Your task to perform on an android device: change text size in settings app Image 0: 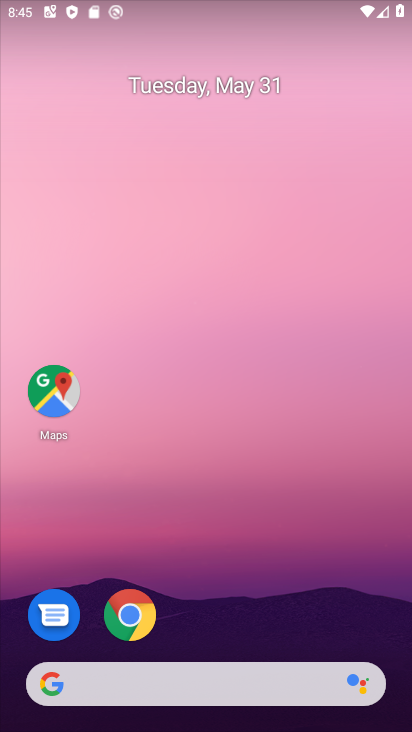
Step 0: drag from (390, 626) to (276, 72)
Your task to perform on an android device: change text size in settings app Image 1: 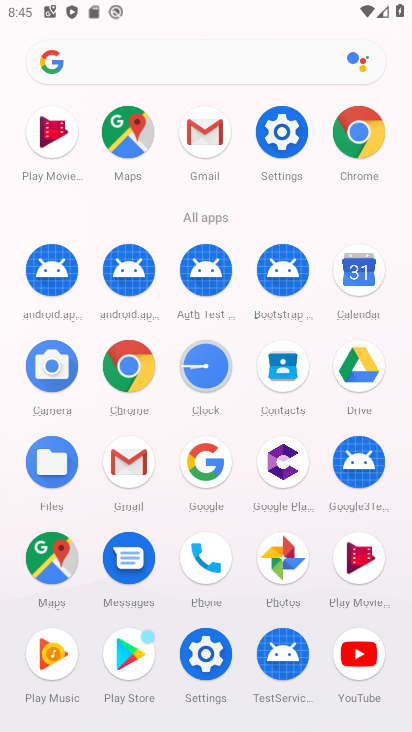
Step 1: click (203, 654)
Your task to perform on an android device: change text size in settings app Image 2: 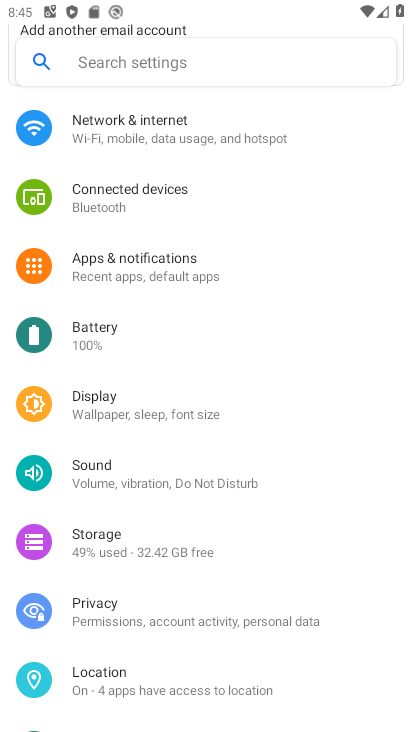
Step 2: click (113, 400)
Your task to perform on an android device: change text size in settings app Image 3: 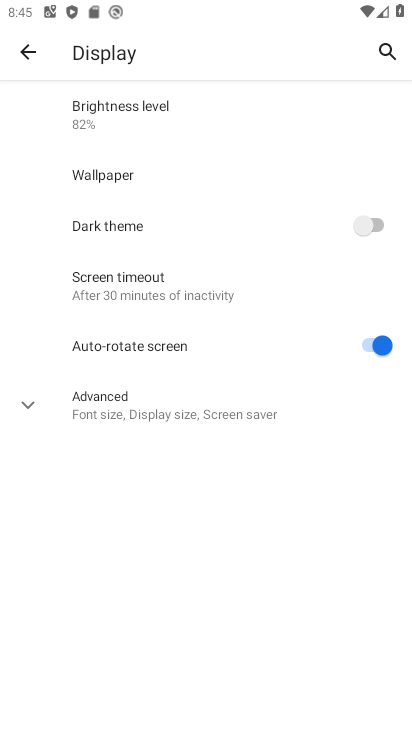
Step 3: click (30, 408)
Your task to perform on an android device: change text size in settings app Image 4: 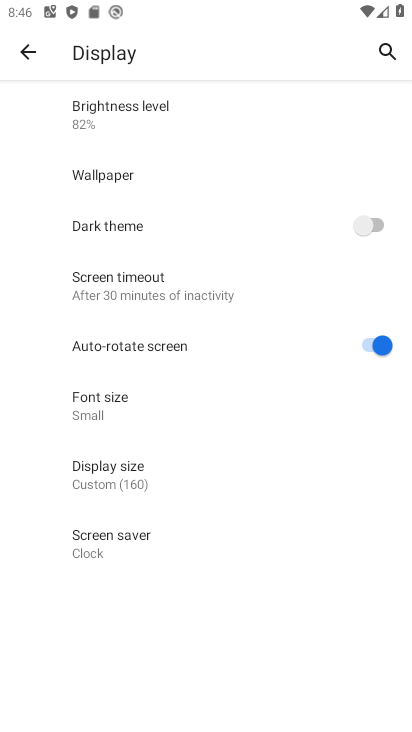
Step 4: click (92, 390)
Your task to perform on an android device: change text size in settings app Image 5: 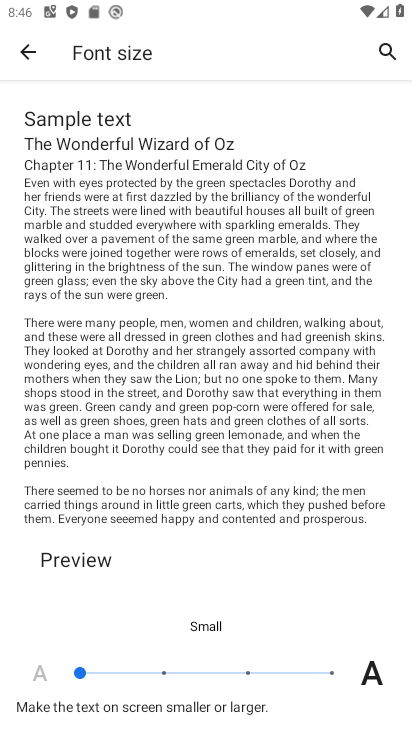
Step 5: click (166, 673)
Your task to perform on an android device: change text size in settings app Image 6: 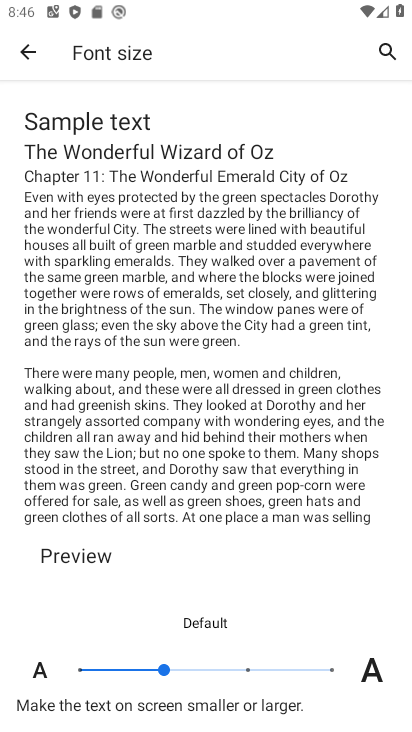
Step 6: task complete